Your task to perform on an android device: Open Android settings Image 0: 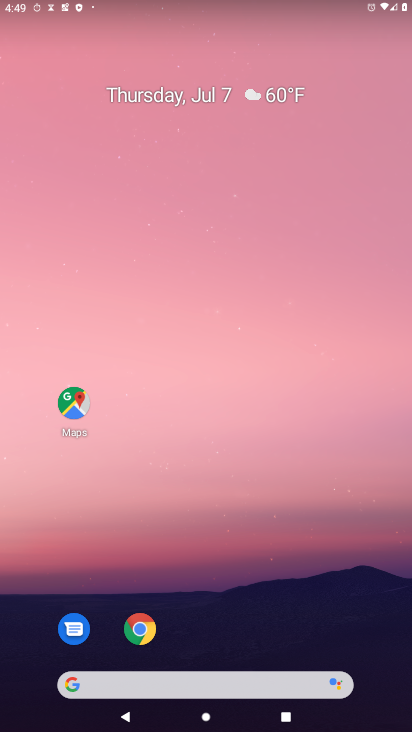
Step 0: drag from (196, 488) to (175, 71)
Your task to perform on an android device: Open Android settings Image 1: 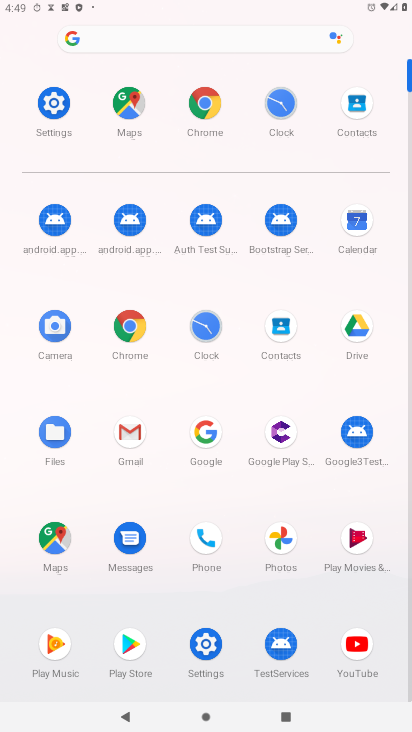
Step 1: click (48, 108)
Your task to perform on an android device: Open Android settings Image 2: 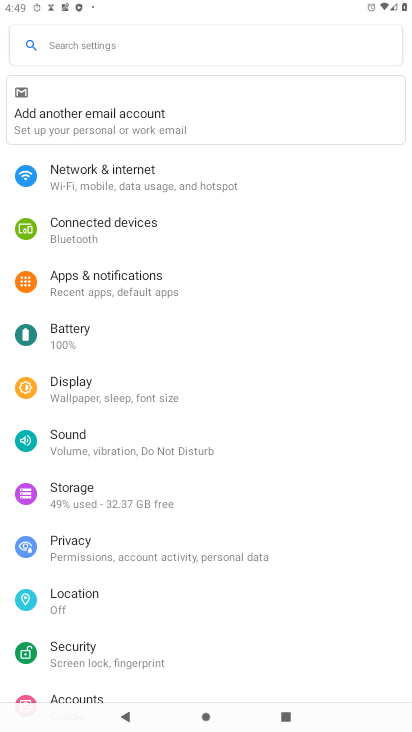
Step 2: drag from (142, 464) to (186, 150)
Your task to perform on an android device: Open Android settings Image 3: 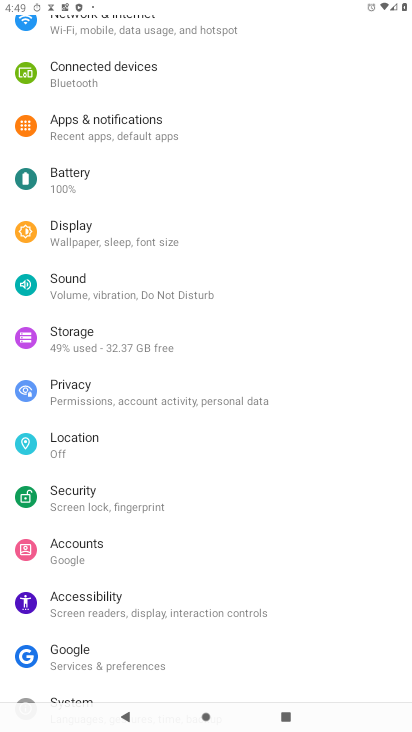
Step 3: drag from (110, 621) to (221, 181)
Your task to perform on an android device: Open Android settings Image 4: 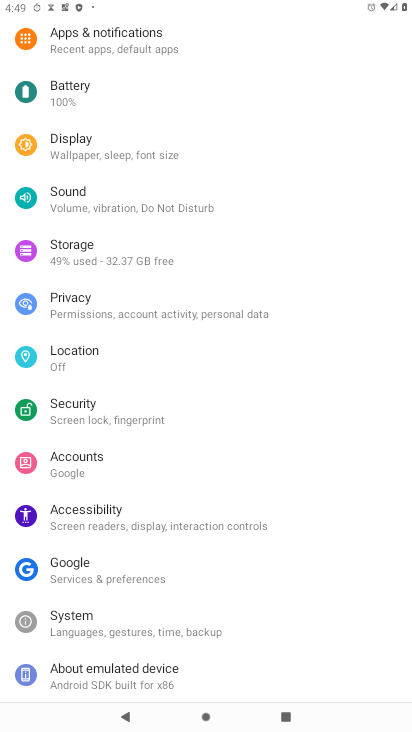
Step 4: drag from (157, 499) to (224, 186)
Your task to perform on an android device: Open Android settings Image 5: 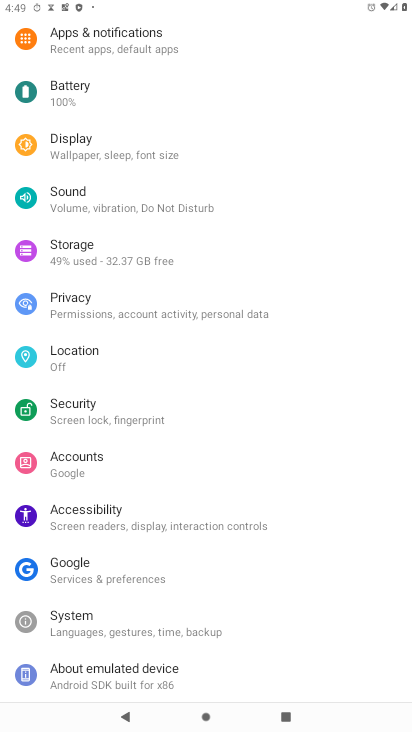
Step 5: drag from (181, 565) to (199, 333)
Your task to perform on an android device: Open Android settings Image 6: 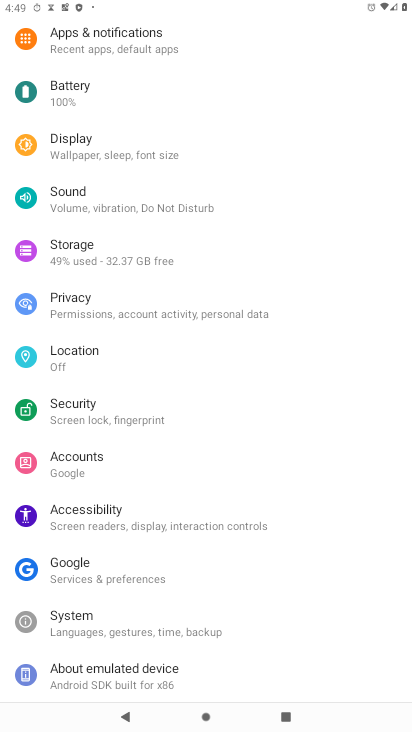
Step 6: click (106, 676)
Your task to perform on an android device: Open Android settings Image 7: 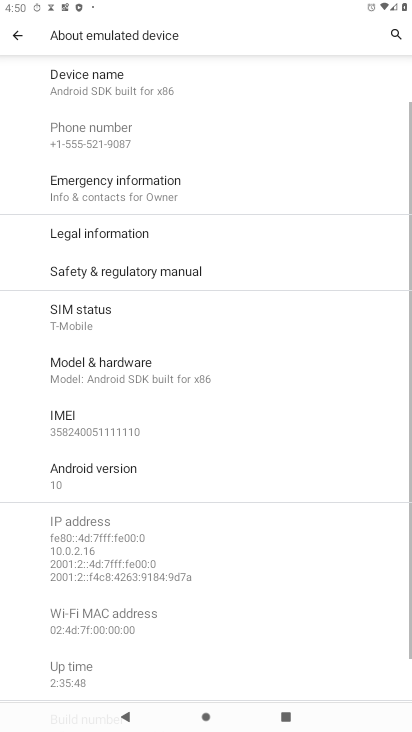
Step 7: click (87, 472)
Your task to perform on an android device: Open Android settings Image 8: 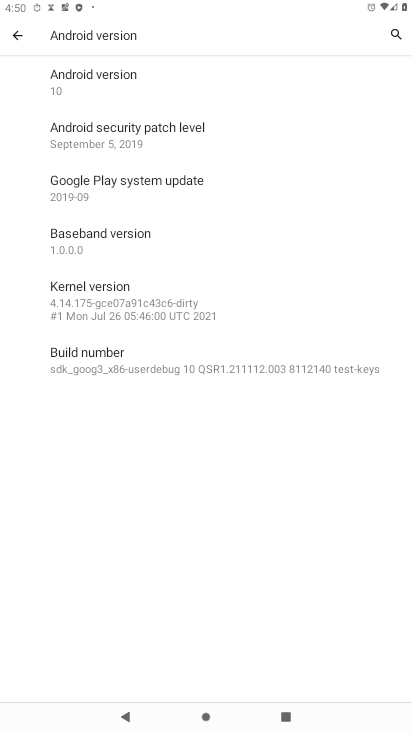
Step 8: task complete